Your task to perform on an android device: Open my contact list Image 0: 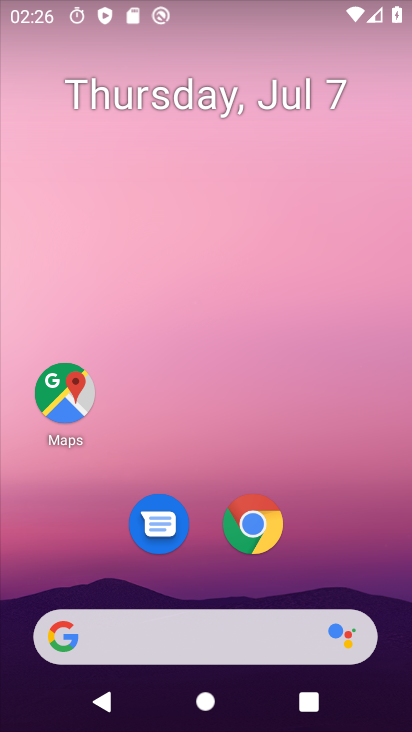
Step 0: drag from (217, 440) to (262, 0)
Your task to perform on an android device: Open my contact list Image 1: 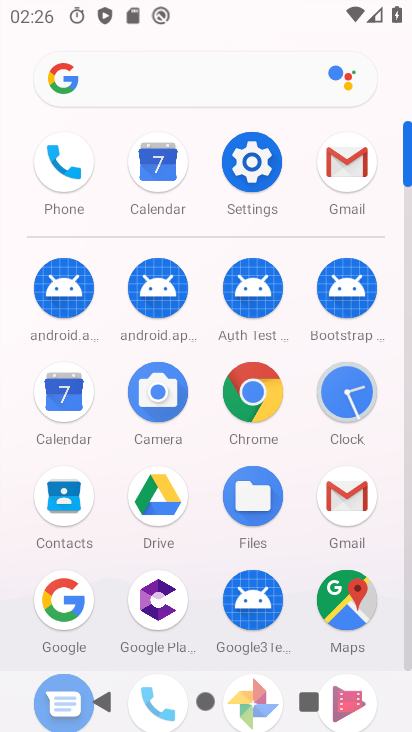
Step 1: click (68, 485)
Your task to perform on an android device: Open my contact list Image 2: 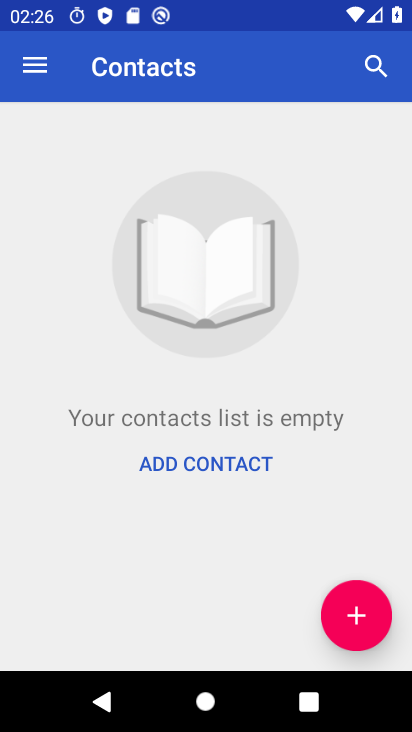
Step 2: task complete